Your task to perform on an android device: Open the phone app and click the voicemail tab. Image 0: 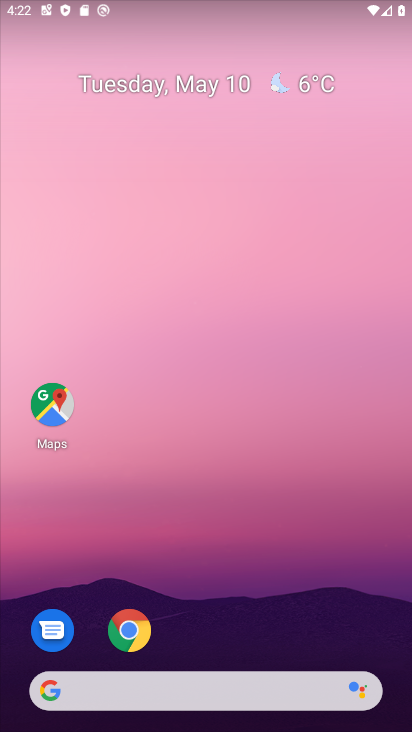
Step 0: drag from (304, 583) to (277, 169)
Your task to perform on an android device: Open the phone app and click the voicemail tab. Image 1: 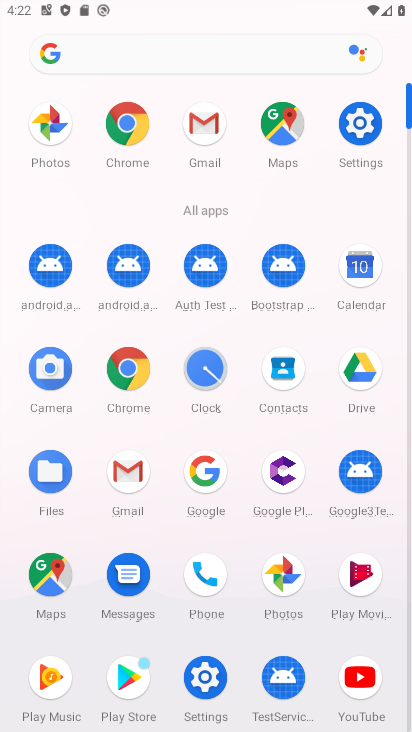
Step 1: click (212, 571)
Your task to perform on an android device: Open the phone app and click the voicemail tab. Image 2: 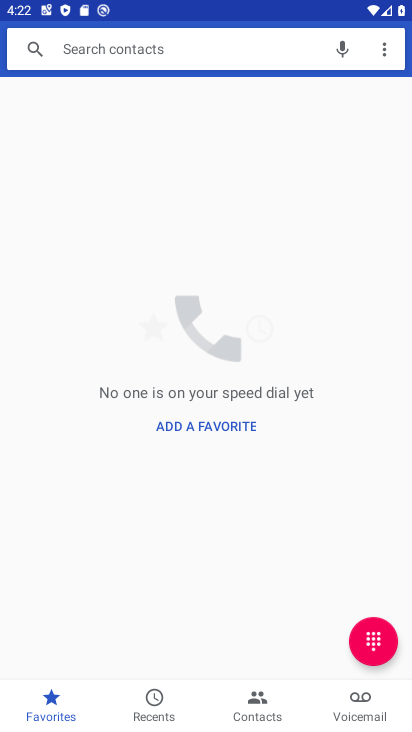
Step 2: click (368, 702)
Your task to perform on an android device: Open the phone app and click the voicemail tab. Image 3: 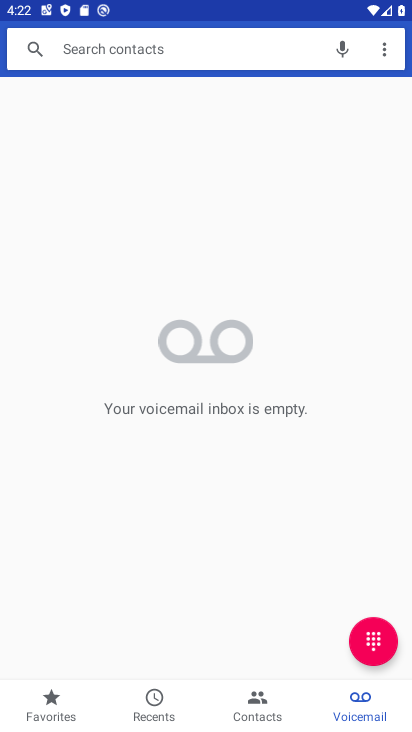
Step 3: task complete